Your task to perform on an android device: Open my contact list Image 0: 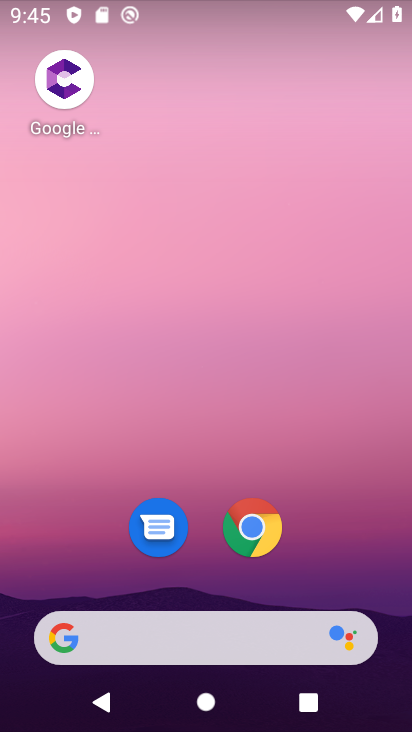
Step 0: drag from (322, 536) to (246, 168)
Your task to perform on an android device: Open my contact list Image 1: 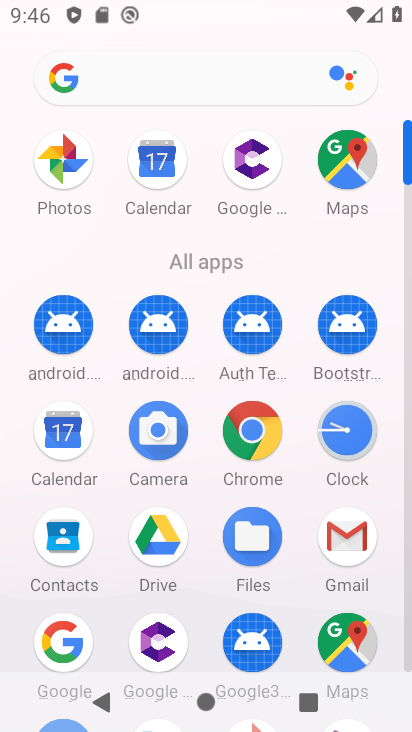
Step 1: click (61, 539)
Your task to perform on an android device: Open my contact list Image 2: 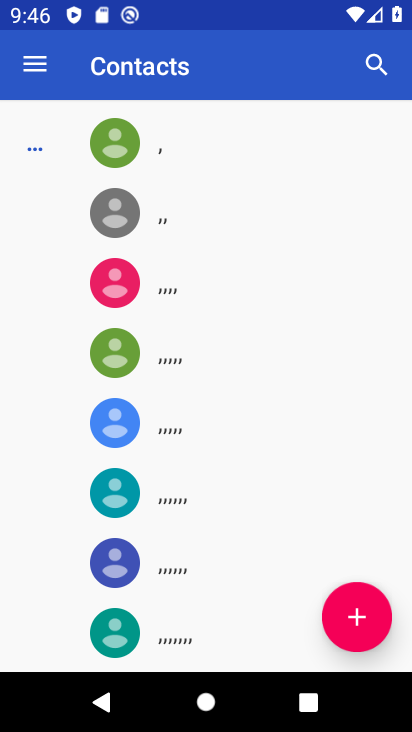
Step 2: task complete